Your task to perform on an android device: toggle notification dots Image 0: 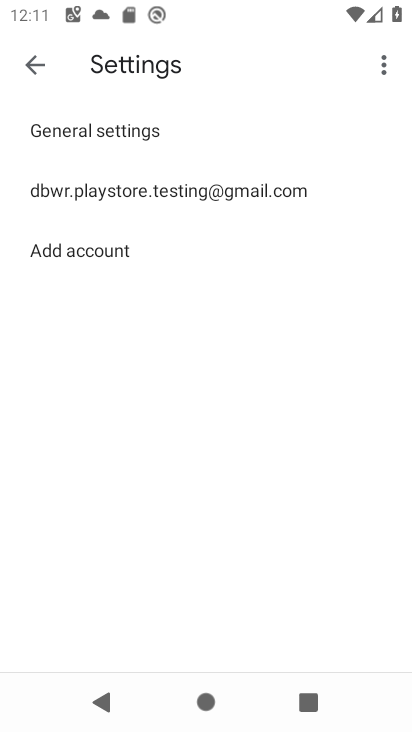
Step 0: press home button
Your task to perform on an android device: toggle notification dots Image 1: 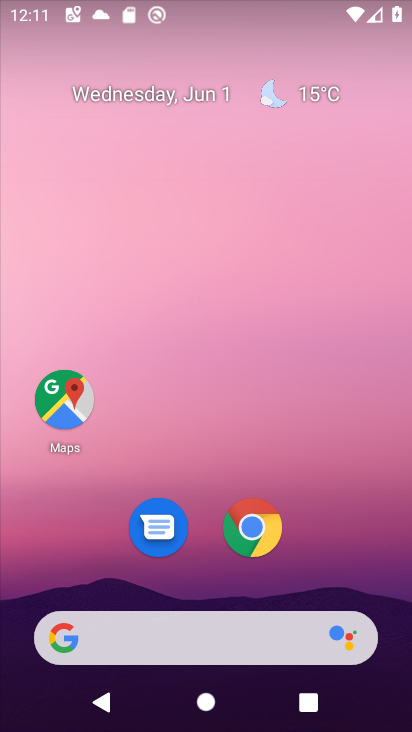
Step 1: drag from (350, 604) to (384, 1)
Your task to perform on an android device: toggle notification dots Image 2: 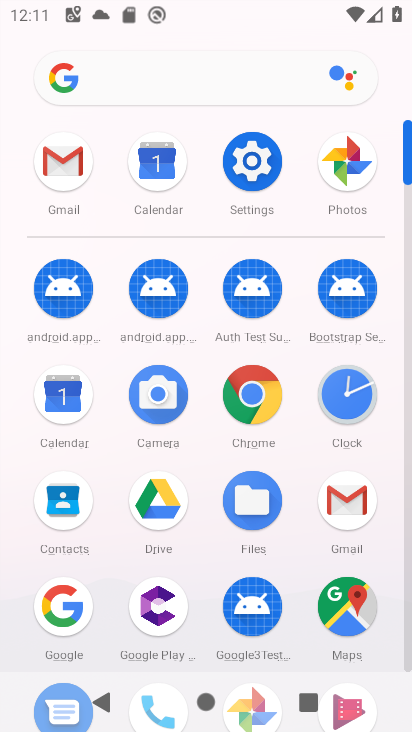
Step 2: click (249, 164)
Your task to perform on an android device: toggle notification dots Image 3: 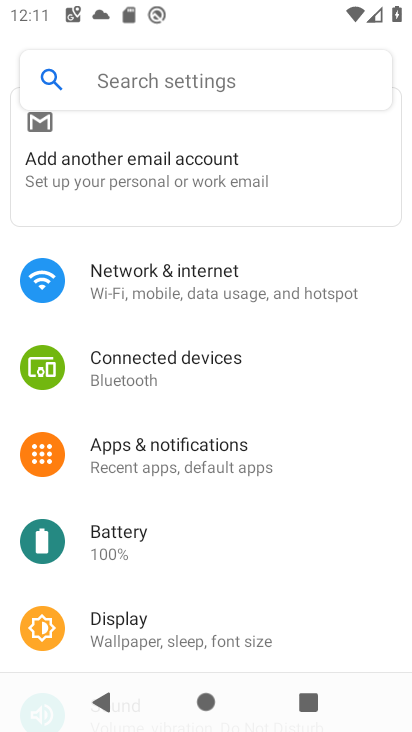
Step 3: click (173, 464)
Your task to perform on an android device: toggle notification dots Image 4: 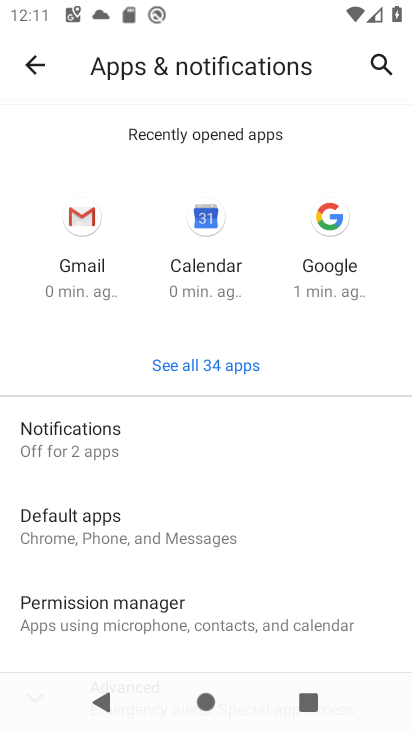
Step 4: click (72, 442)
Your task to perform on an android device: toggle notification dots Image 5: 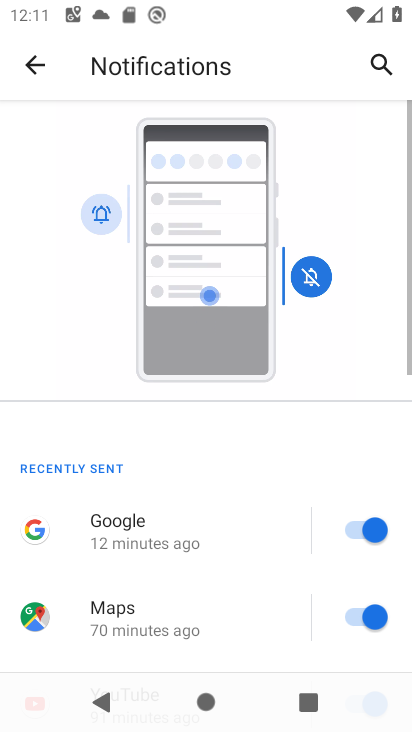
Step 5: drag from (176, 550) to (195, 103)
Your task to perform on an android device: toggle notification dots Image 6: 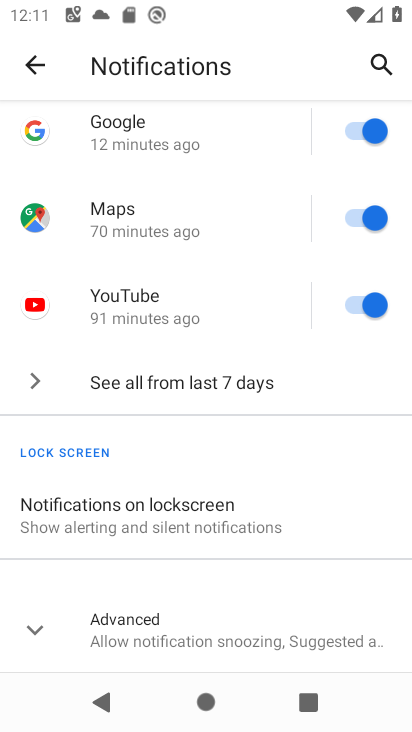
Step 6: drag from (90, 548) to (105, 241)
Your task to perform on an android device: toggle notification dots Image 7: 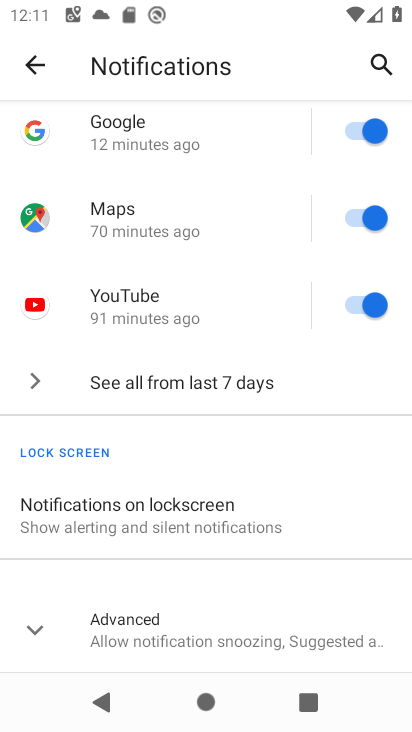
Step 7: click (36, 642)
Your task to perform on an android device: toggle notification dots Image 8: 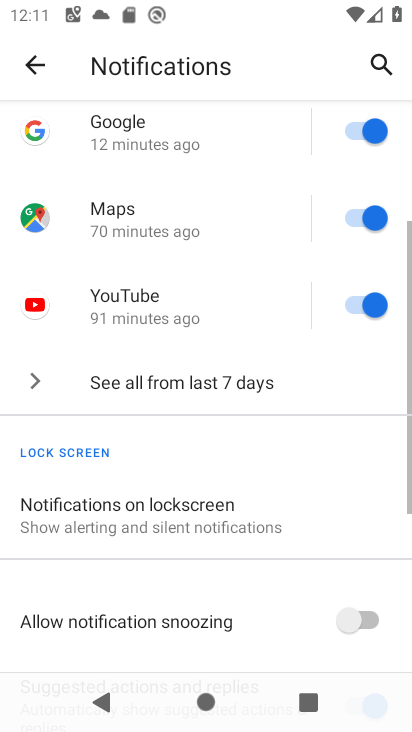
Step 8: drag from (157, 618) to (163, 181)
Your task to perform on an android device: toggle notification dots Image 9: 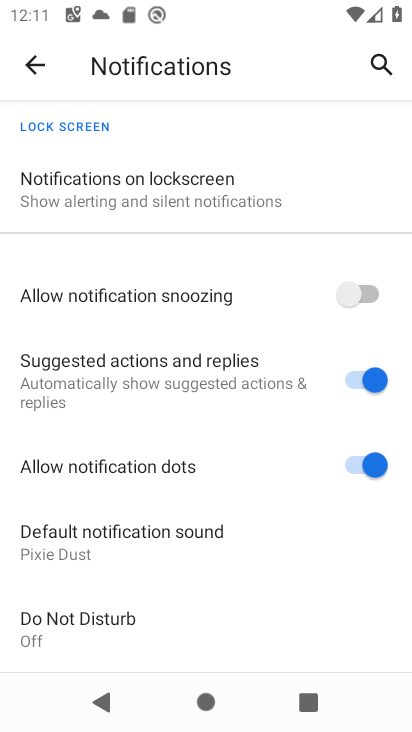
Step 9: click (375, 475)
Your task to perform on an android device: toggle notification dots Image 10: 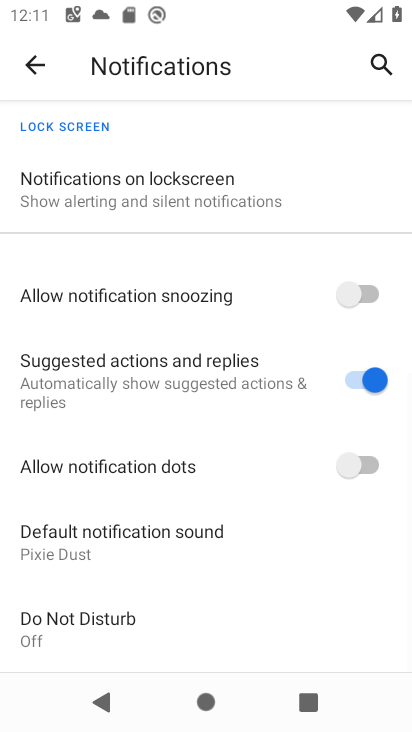
Step 10: task complete